Your task to perform on an android device: Toggle the flashlight Image 0: 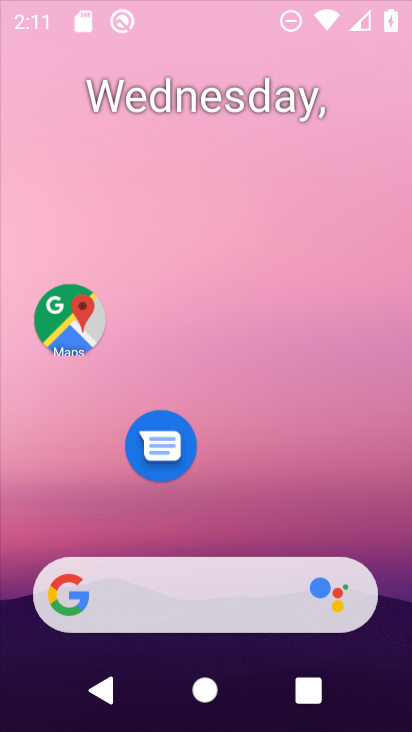
Step 0: drag from (326, 241) to (345, 31)
Your task to perform on an android device: Toggle the flashlight Image 1: 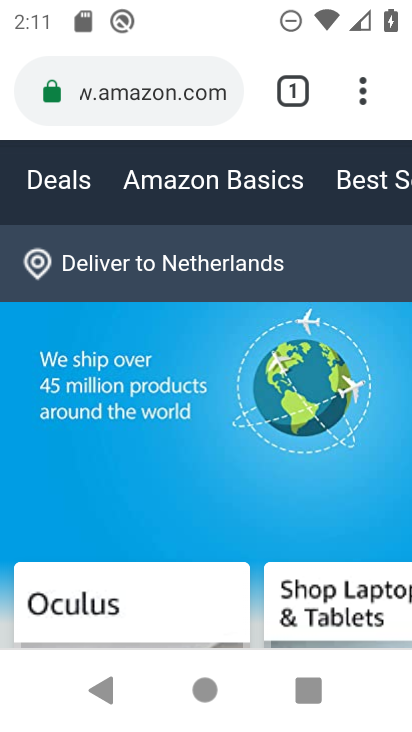
Step 1: press home button
Your task to perform on an android device: Toggle the flashlight Image 2: 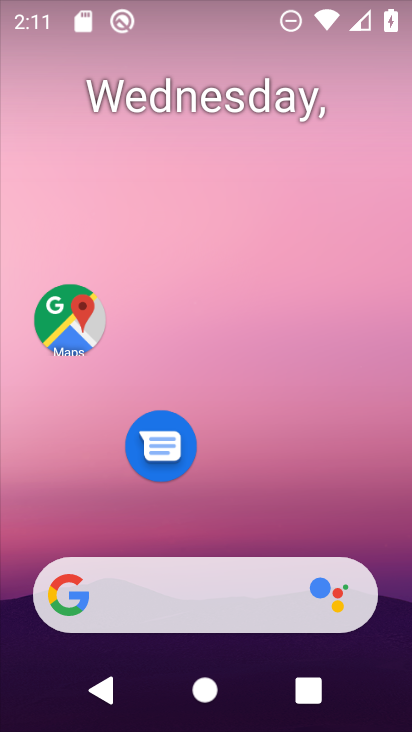
Step 2: drag from (290, 486) to (326, 17)
Your task to perform on an android device: Toggle the flashlight Image 3: 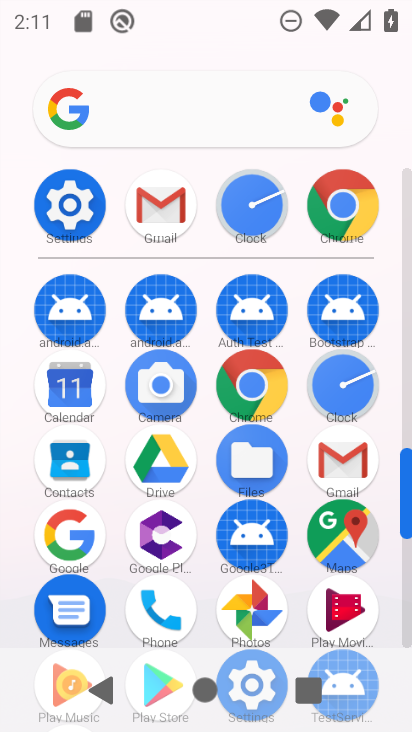
Step 3: click (179, 255)
Your task to perform on an android device: Toggle the flashlight Image 4: 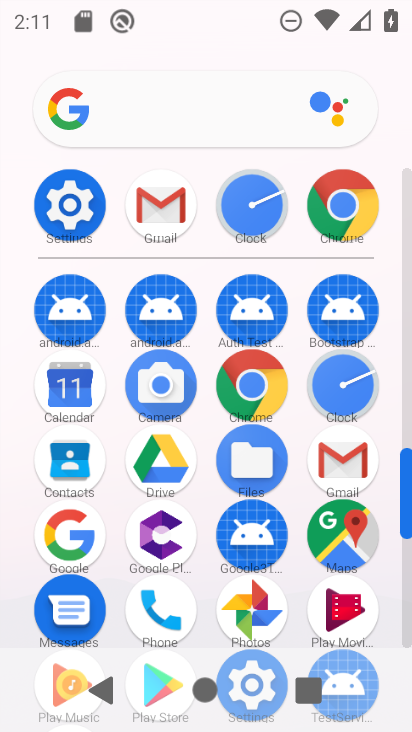
Step 4: click (77, 227)
Your task to perform on an android device: Toggle the flashlight Image 5: 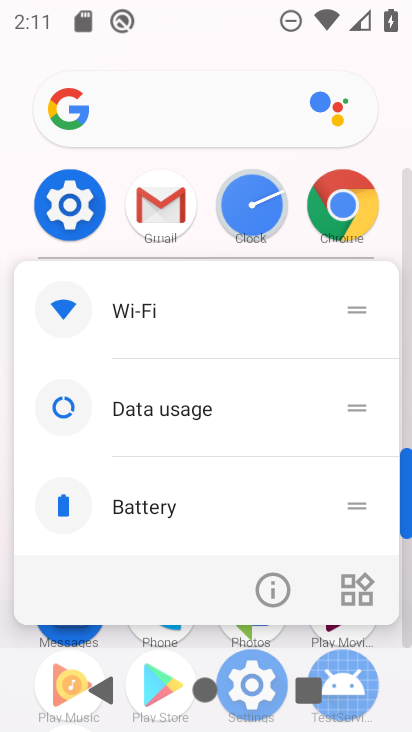
Step 5: click (77, 227)
Your task to perform on an android device: Toggle the flashlight Image 6: 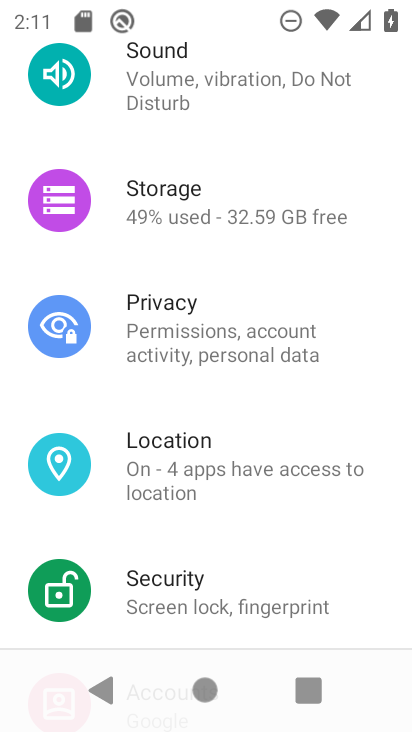
Step 6: task complete